Your task to perform on an android device: Open Chrome and go to the settings page Image 0: 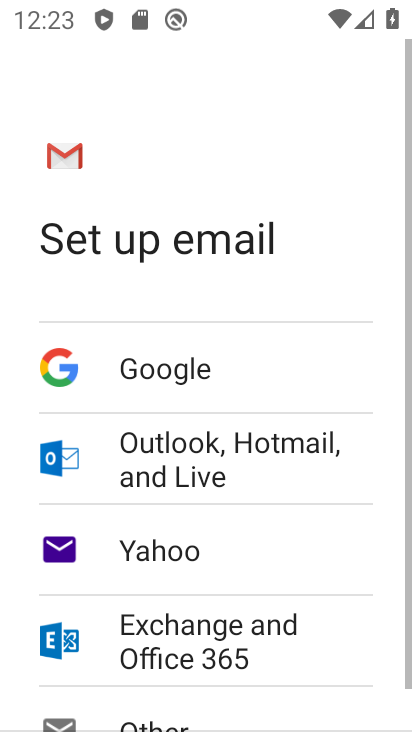
Step 0: press home button
Your task to perform on an android device: Open Chrome and go to the settings page Image 1: 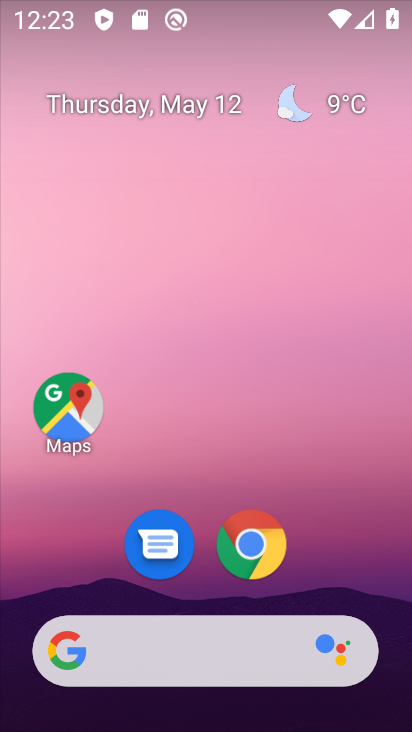
Step 1: drag from (184, 714) to (188, 186)
Your task to perform on an android device: Open Chrome and go to the settings page Image 2: 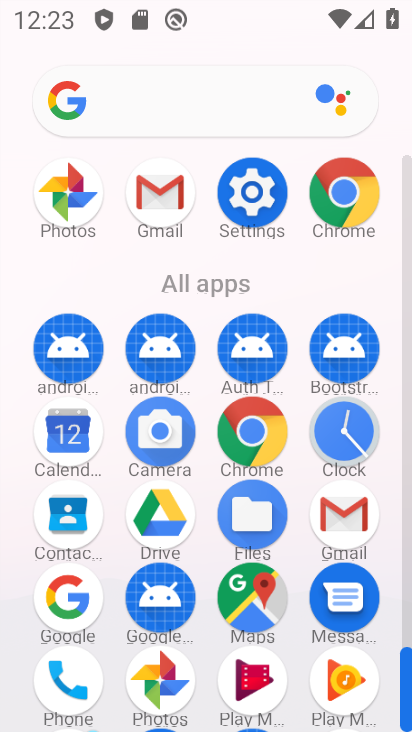
Step 2: click (349, 196)
Your task to perform on an android device: Open Chrome and go to the settings page Image 3: 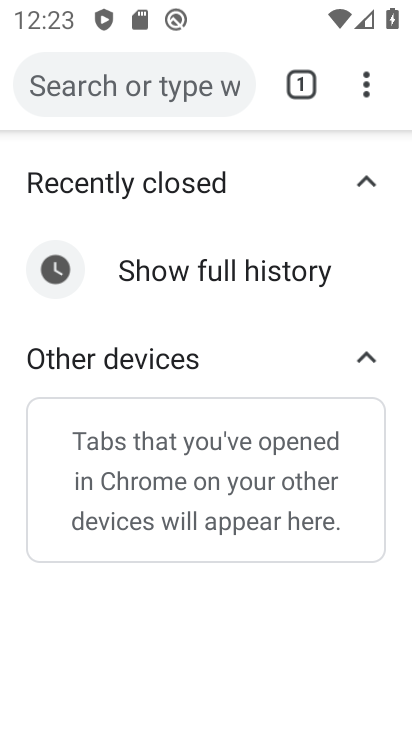
Step 3: click (368, 95)
Your task to perform on an android device: Open Chrome and go to the settings page Image 4: 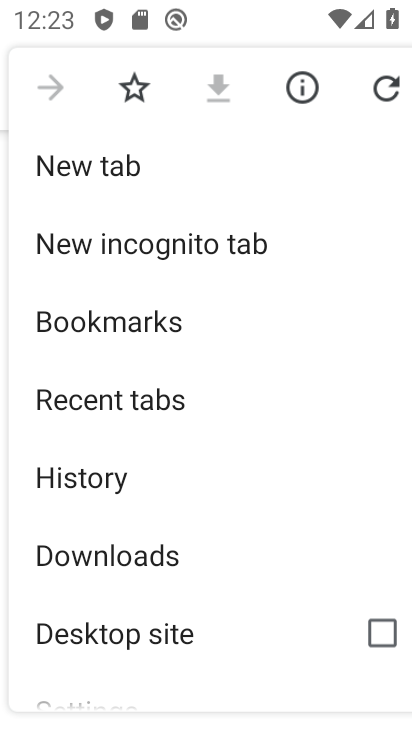
Step 4: drag from (110, 616) to (107, 219)
Your task to perform on an android device: Open Chrome and go to the settings page Image 5: 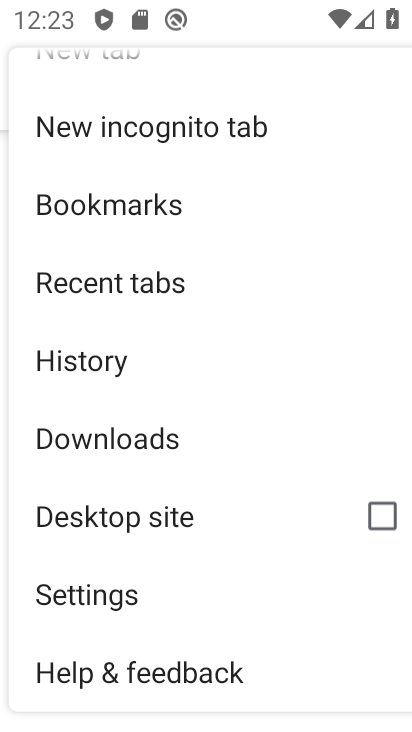
Step 5: click (87, 589)
Your task to perform on an android device: Open Chrome and go to the settings page Image 6: 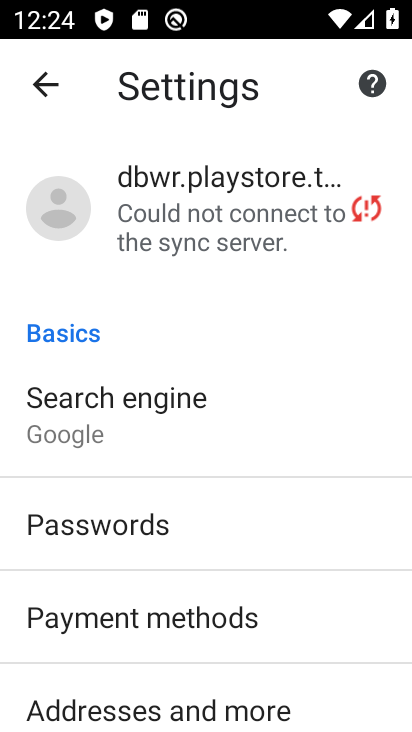
Step 6: task complete